Your task to perform on an android device: open app "Life360: Find Family & Friends" (install if not already installed), go to login, and select forgot password Image 0: 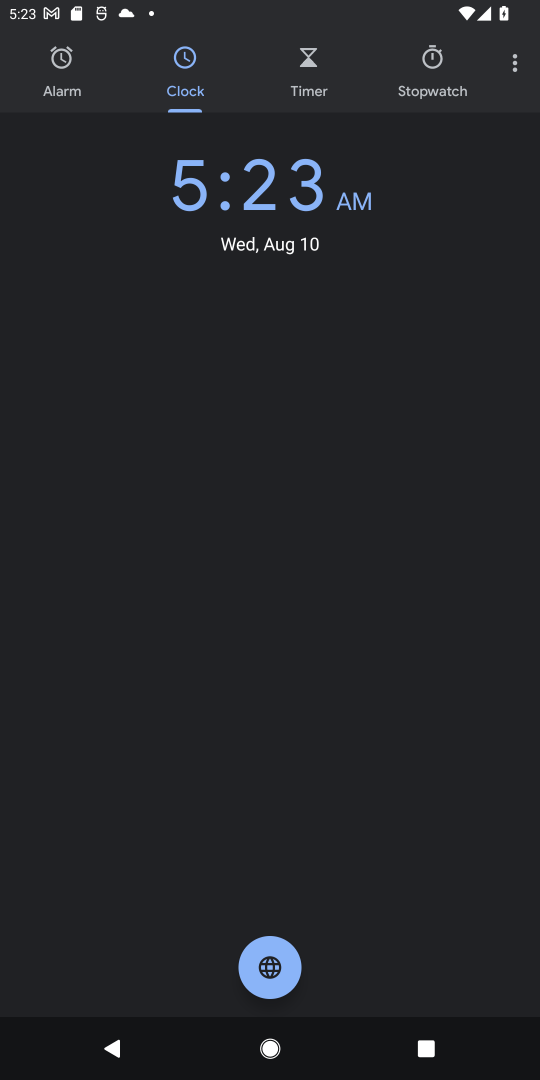
Step 0: press home button
Your task to perform on an android device: open app "Life360: Find Family & Friends" (install if not already installed), go to login, and select forgot password Image 1: 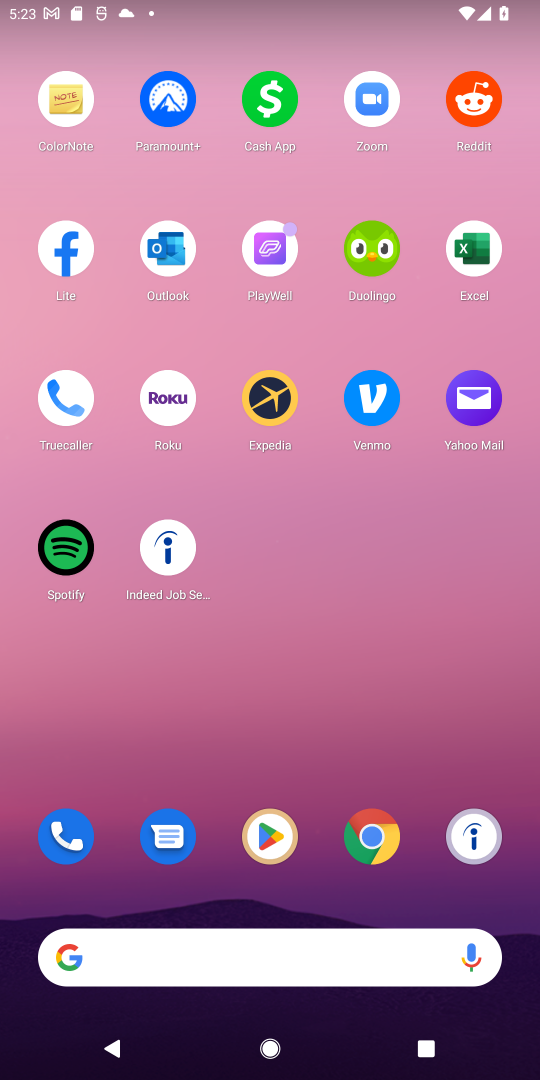
Step 1: drag from (125, 476) to (531, 537)
Your task to perform on an android device: open app "Life360: Find Family & Friends" (install if not already installed), go to login, and select forgot password Image 2: 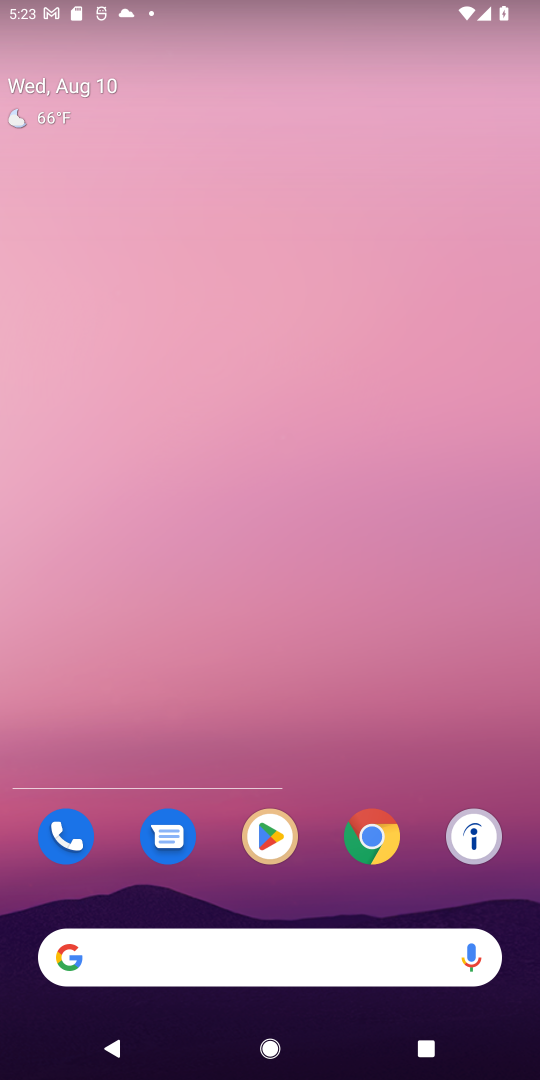
Step 2: click (266, 832)
Your task to perform on an android device: open app "Life360: Find Family & Friends" (install if not already installed), go to login, and select forgot password Image 3: 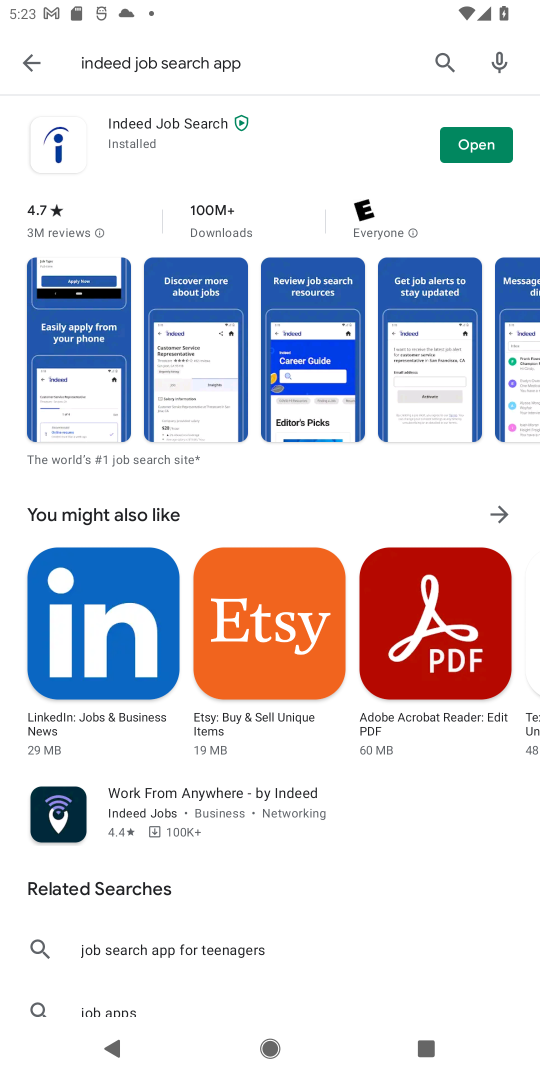
Step 3: click (38, 59)
Your task to perform on an android device: open app "Life360: Find Family & Friends" (install if not already installed), go to login, and select forgot password Image 4: 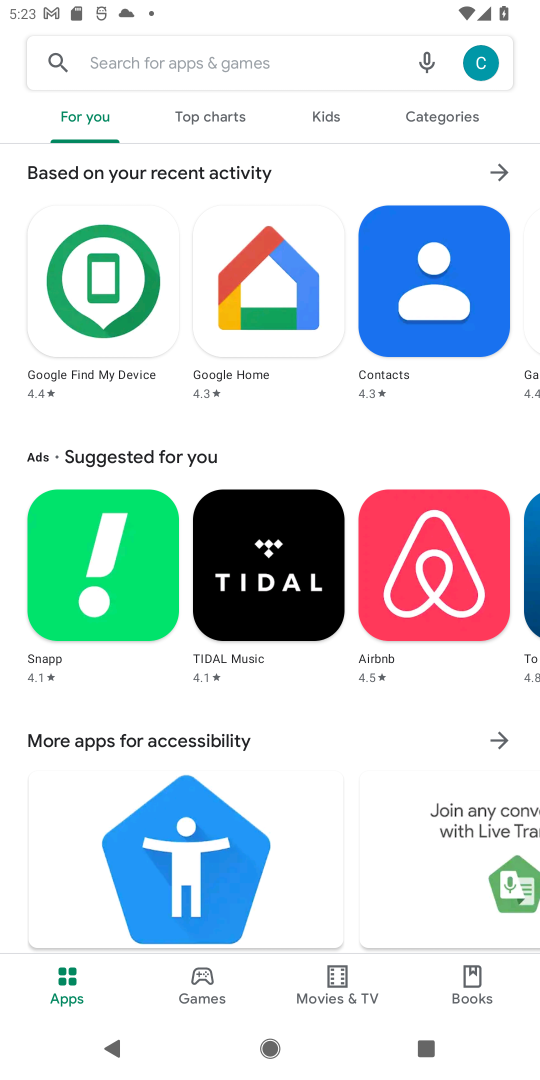
Step 4: click (230, 64)
Your task to perform on an android device: open app "Life360: Find Family & Friends" (install if not already installed), go to login, and select forgot password Image 5: 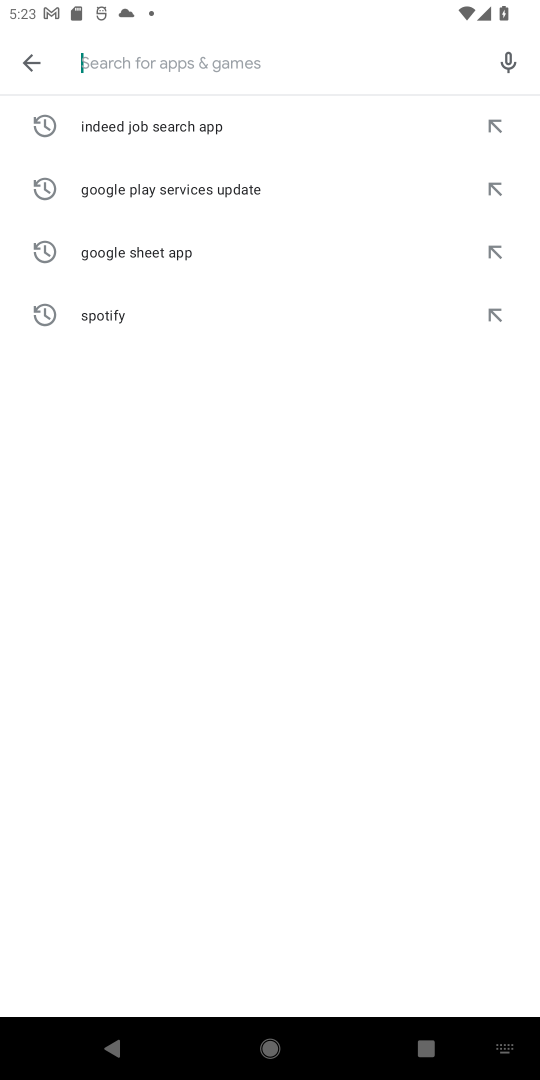
Step 5: type "Life360: Find Family & Friends "
Your task to perform on an android device: open app "Life360: Find Family & Friends" (install if not already installed), go to login, and select forgot password Image 6: 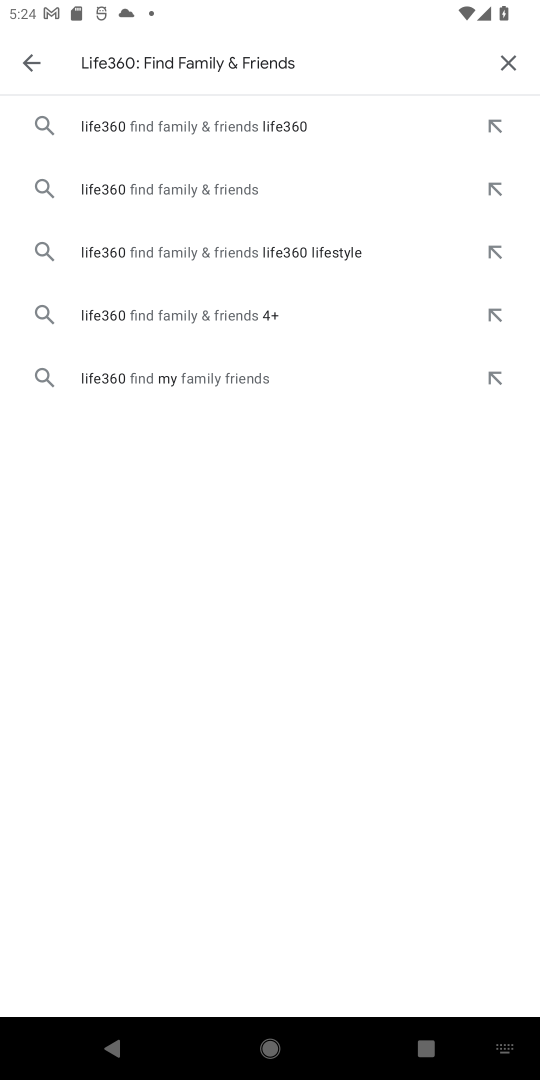
Step 6: click (323, 130)
Your task to perform on an android device: open app "Life360: Find Family & Friends" (install if not already installed), go to login, and select forgot password Image 7: 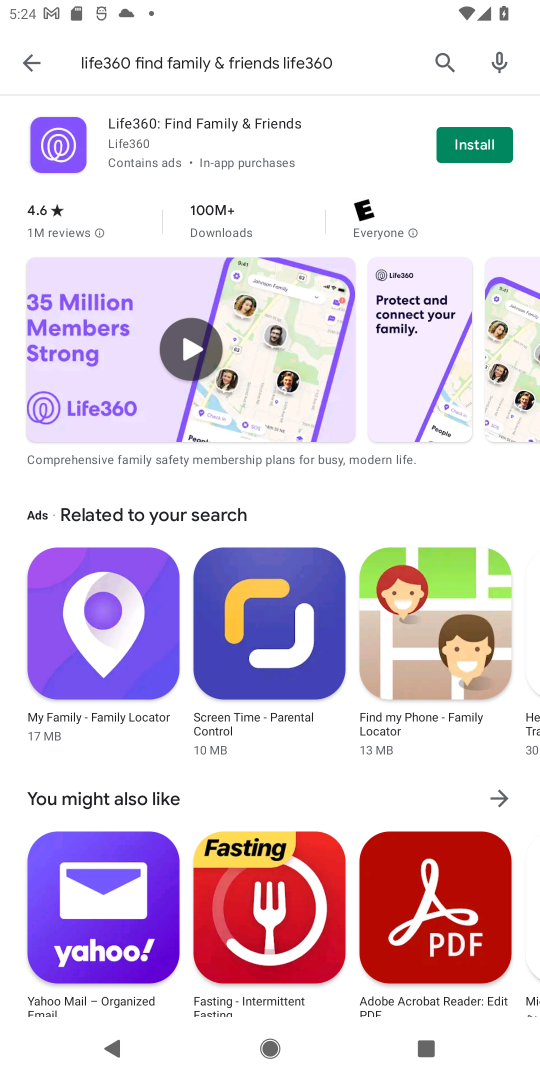
Step 7: click (489, 140)
Your task to perform on an android device: open app "Life360: Find Family & Friends" (install if not already installed), go to login, and select forgot password Image 8: 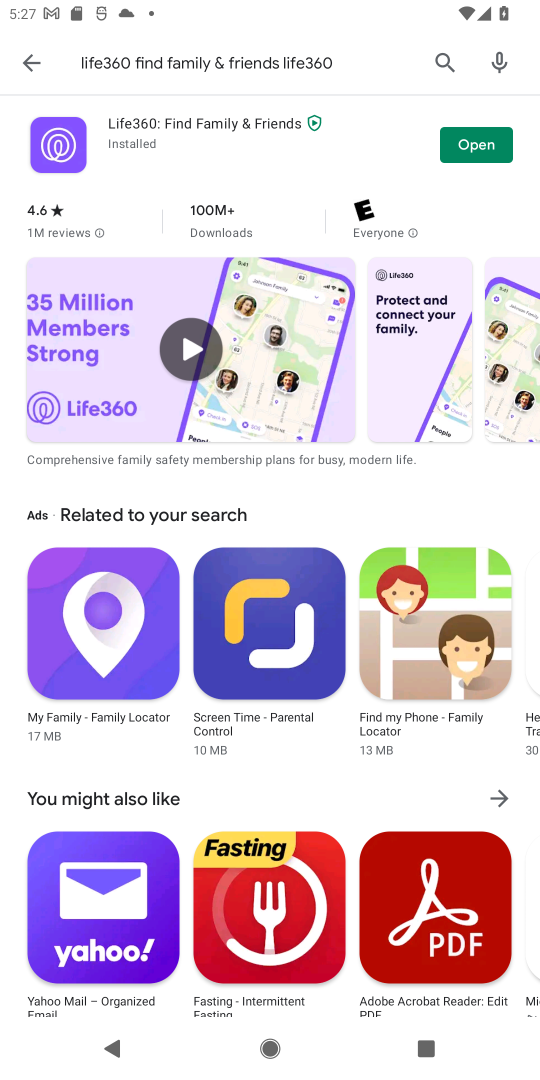
Step 8: click (487, 162)
Your task to perform on an android device: open app "Life360: Find Family & Friends" (install if not already installed), go to login, and select forgot password Image 9: 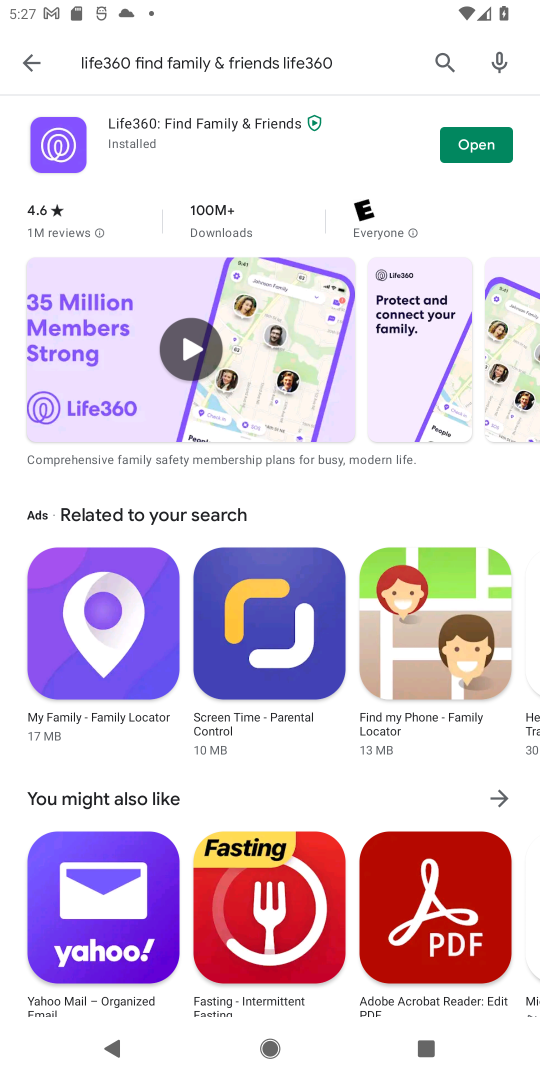
Step 9: click (495, 141)
Your task to perform on an android device: open app "Life360: Find Family & Friends" (install if not already installed), go to login, and select forgot password Image 10: 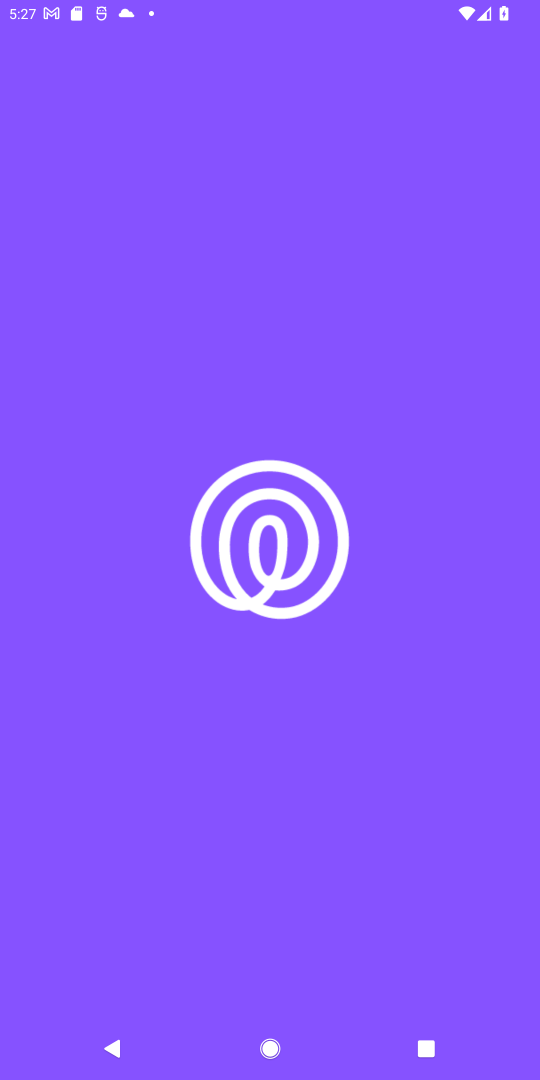
Step 10: task complete